Your task to perform on an android device: Search for the best rated kitchen reno kits on Lowes.com Image 0: 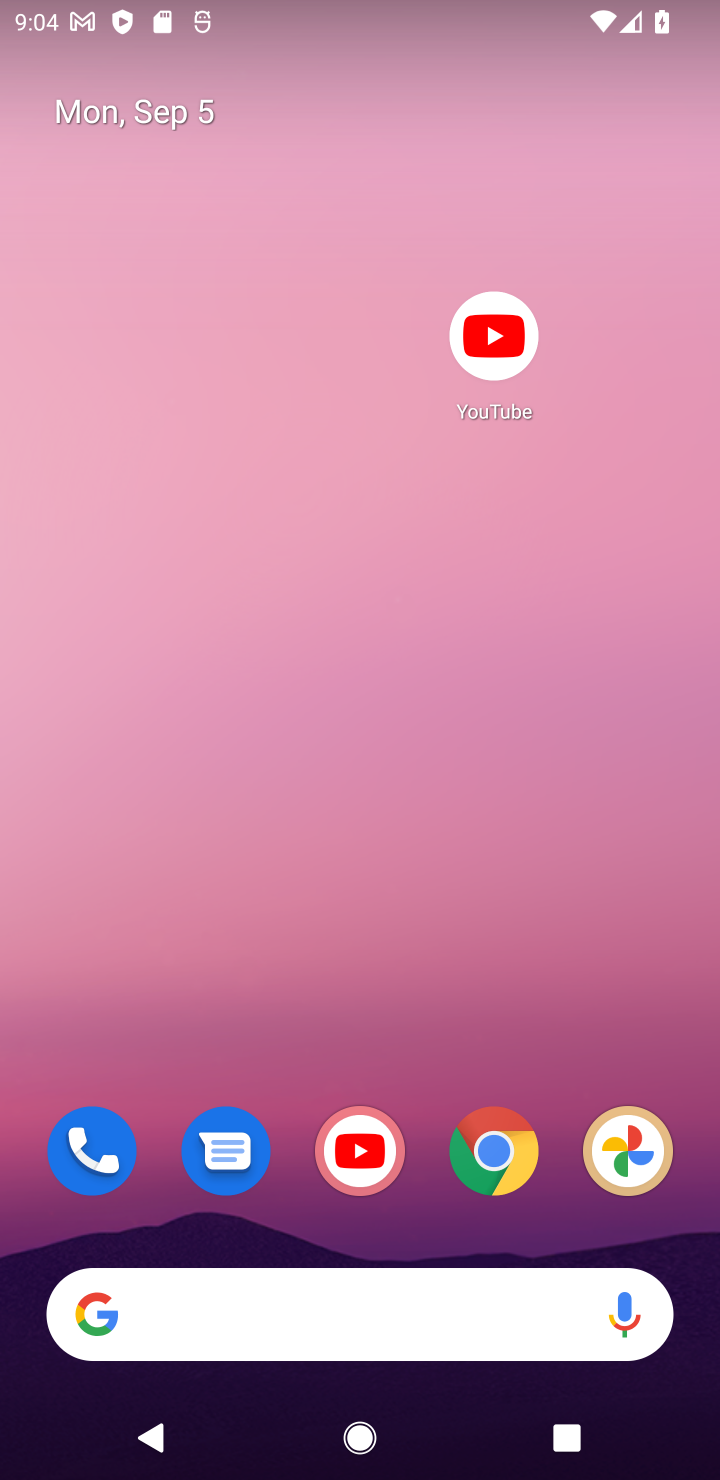
Step 0: click (44, 298)
Your task to perform on an android device: Search for the best rated kitchen reno kits on Lowes.com Image 1: 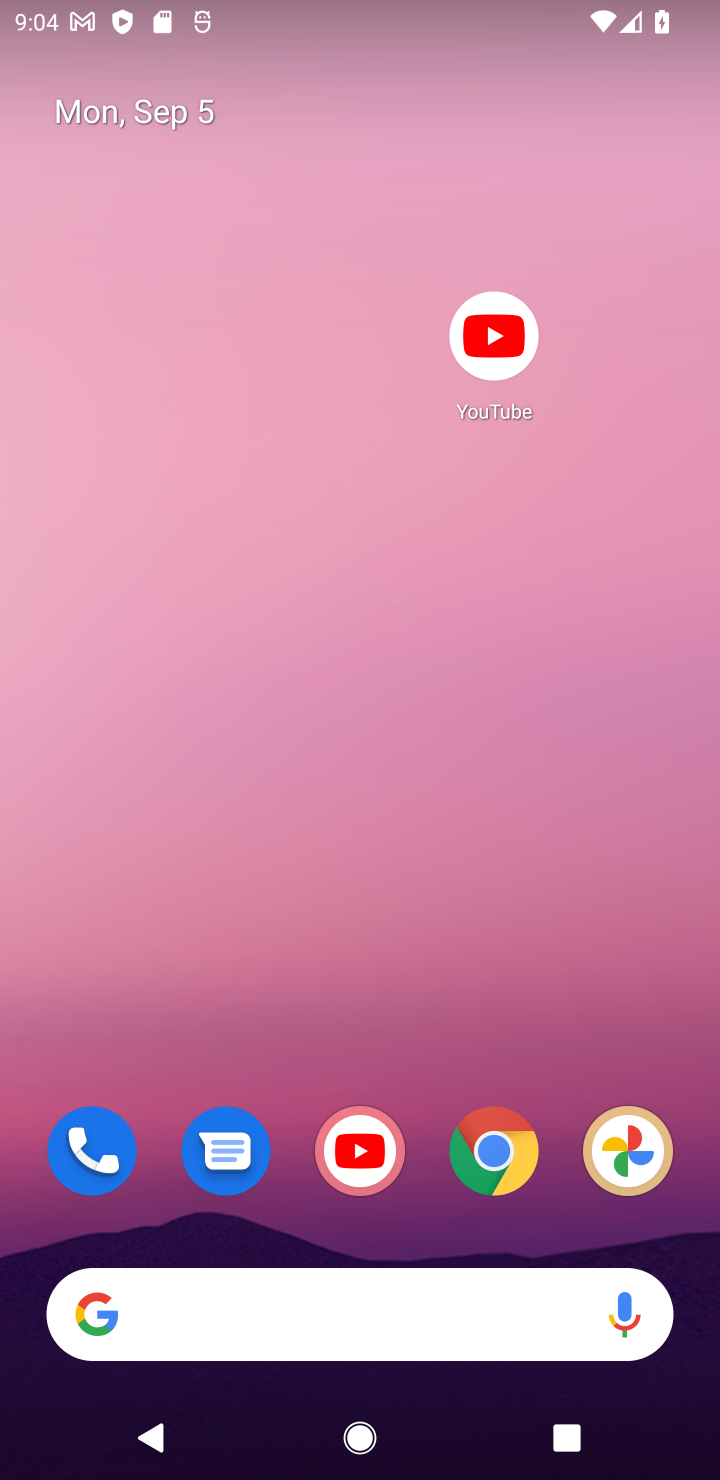
Step 1: drag from (334, 645) to (447, 177)
Your task to perform on an android device: Search for the best rated kitchen reno kits on Lowes.com Image 2: 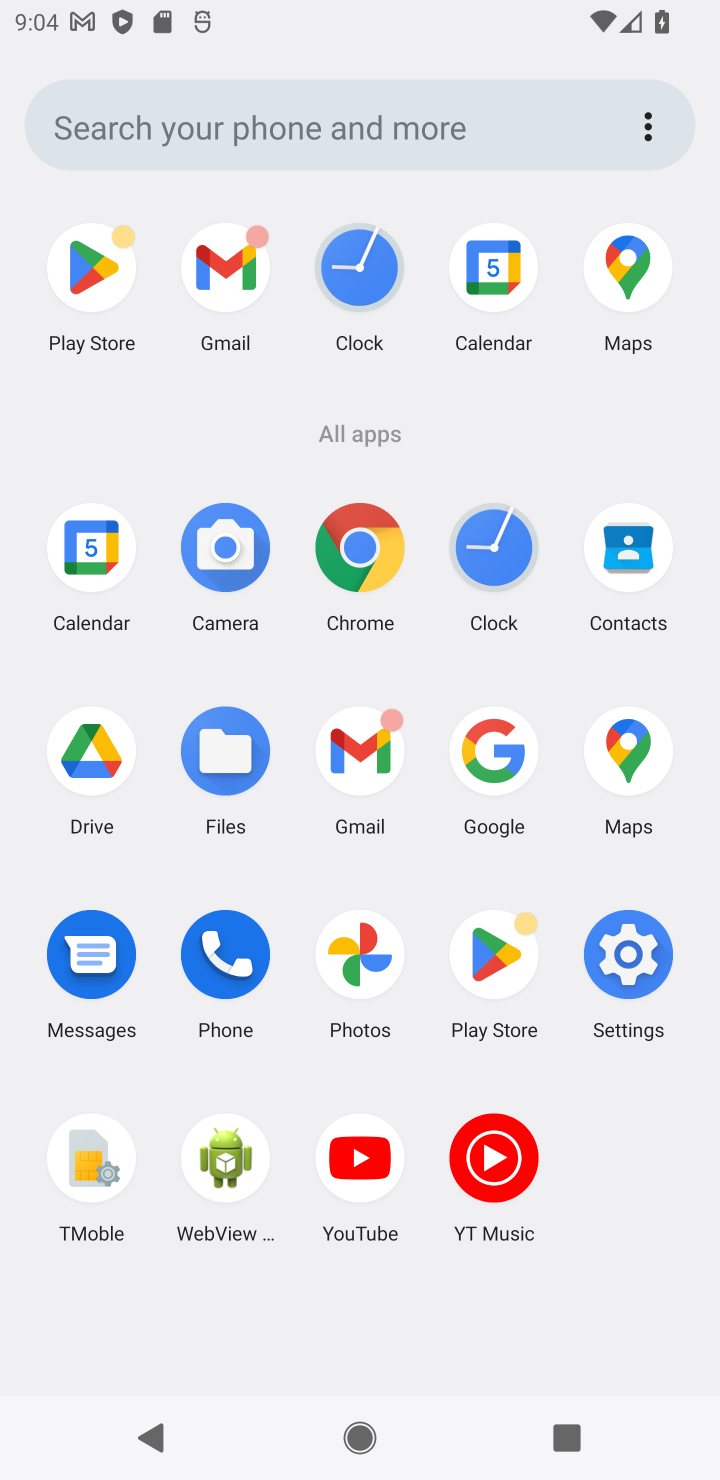
Step 2: click (380, 566)
Your task to perform on an android device: Search for the best rated kitchen reno kits on Lowes.com Image 3: 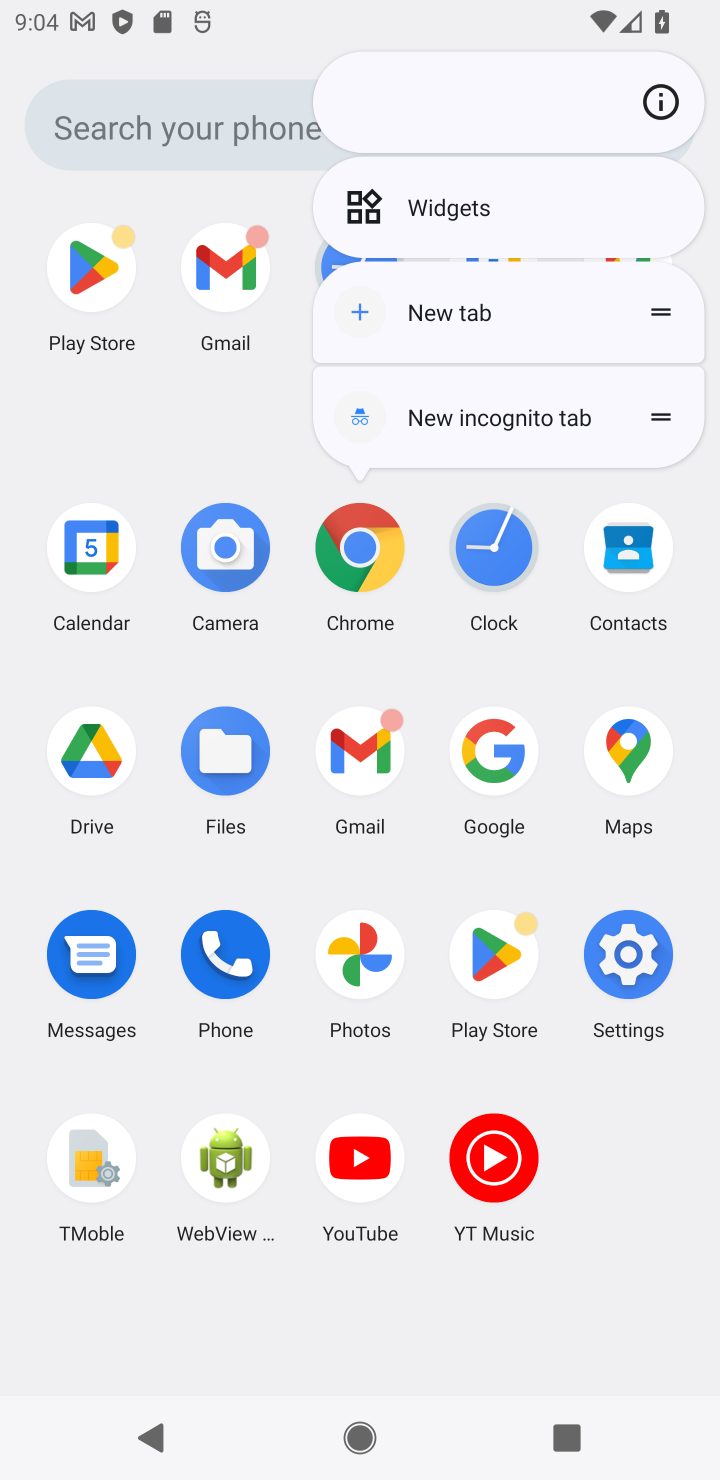
Step 3: click (379, 558)
Your task to perform on an android device: Search for the best rated kitchen reno kits on Lowes.com Image 4: 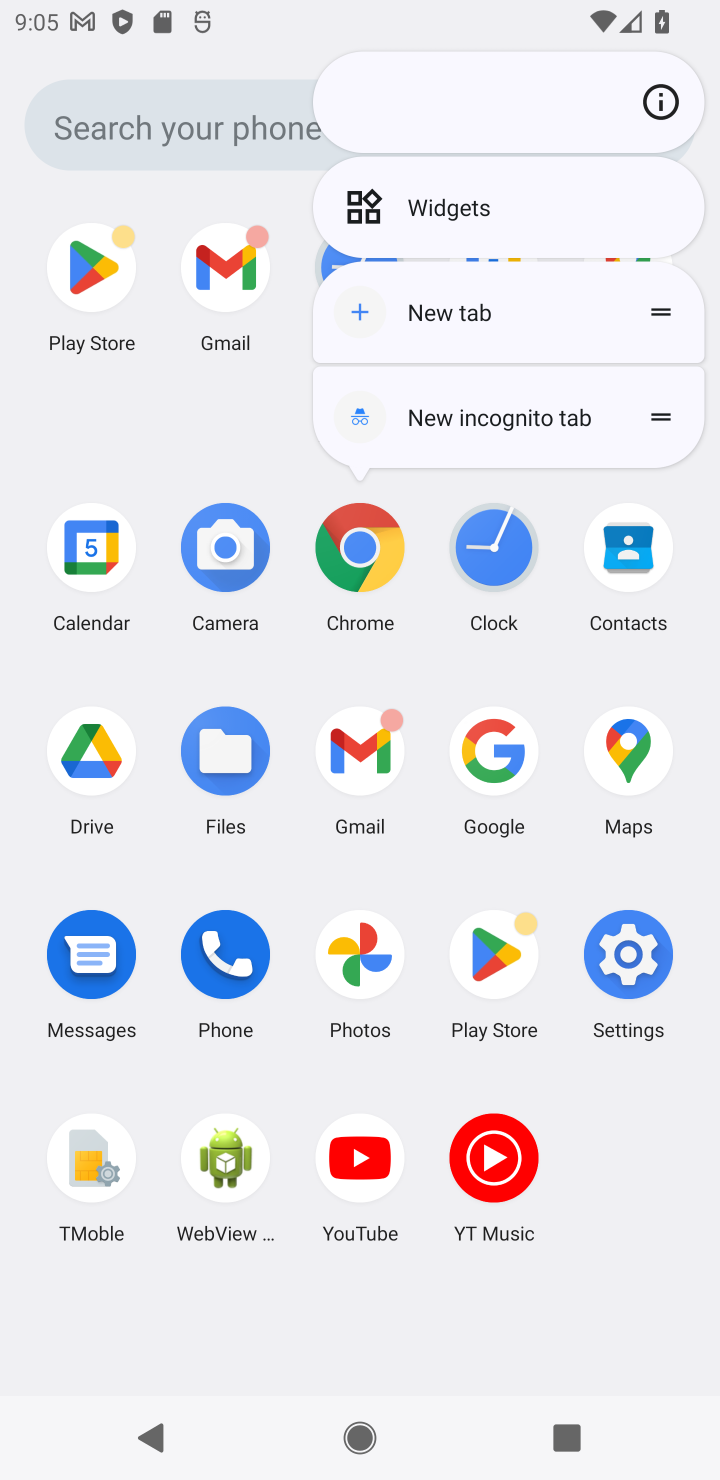
Step 4: click (379, 558)
Your task to perform on an android device: Search for the best rated kitchen reno kits on Lowes.com Image 5: 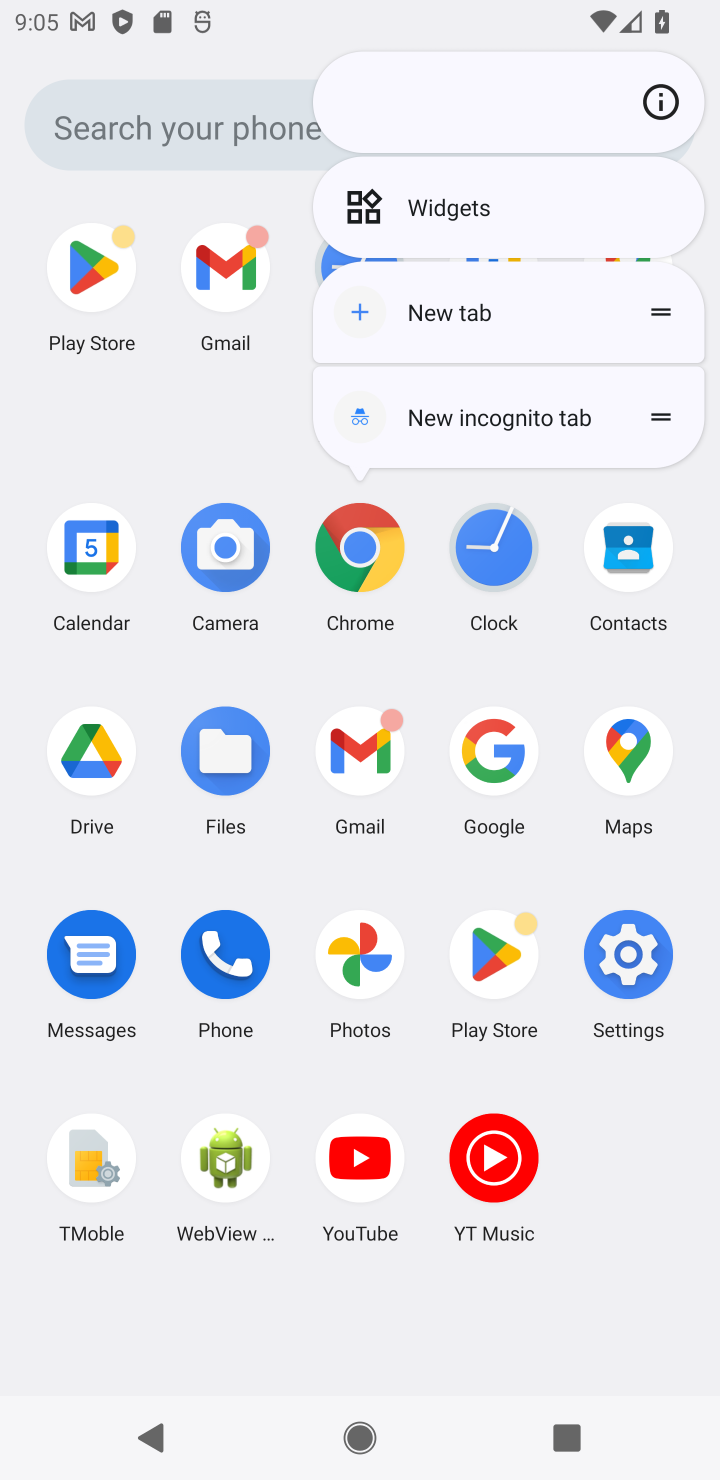
Step 5: click (338, 525)
Your task to perform on an android device: Search for the best rated kitchen reno kits on Lowes.com Image 6: 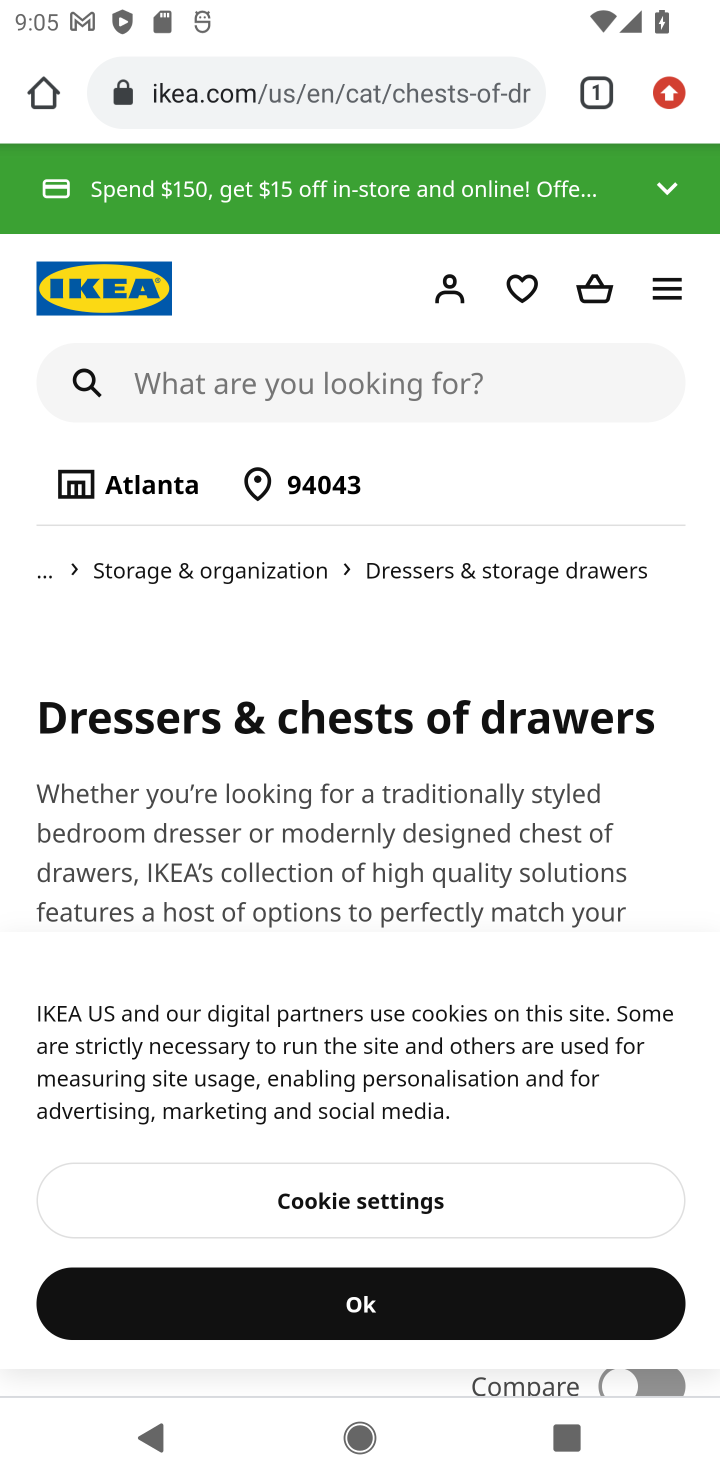
Step 6: click (258, 70)
Your task to perform on an android device: Search for the best rated kitchen reno kits on Lowes.com Image 7: 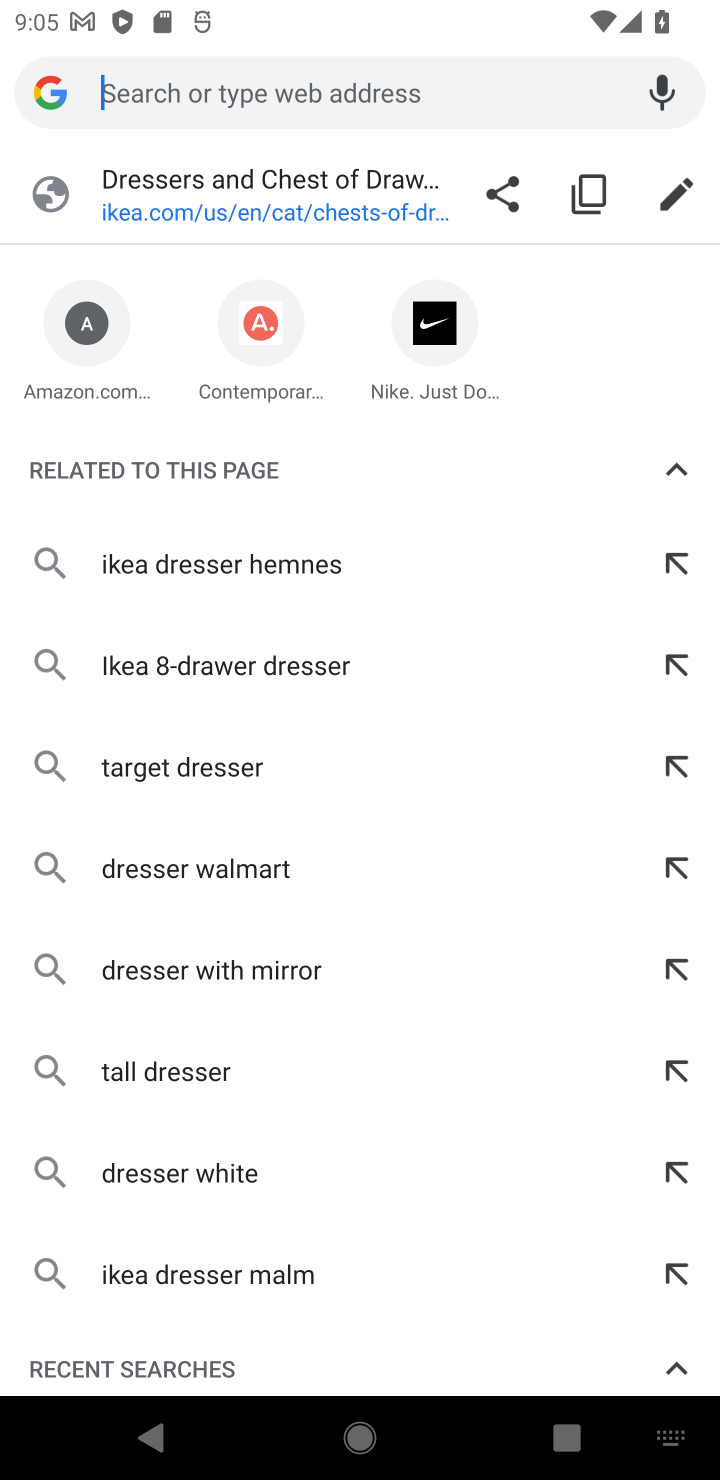
Step 7: type "Lowes.com"
Your task to perform on an android device: Search for the best rated kitchen reno kits on Lowes.com Image 8: 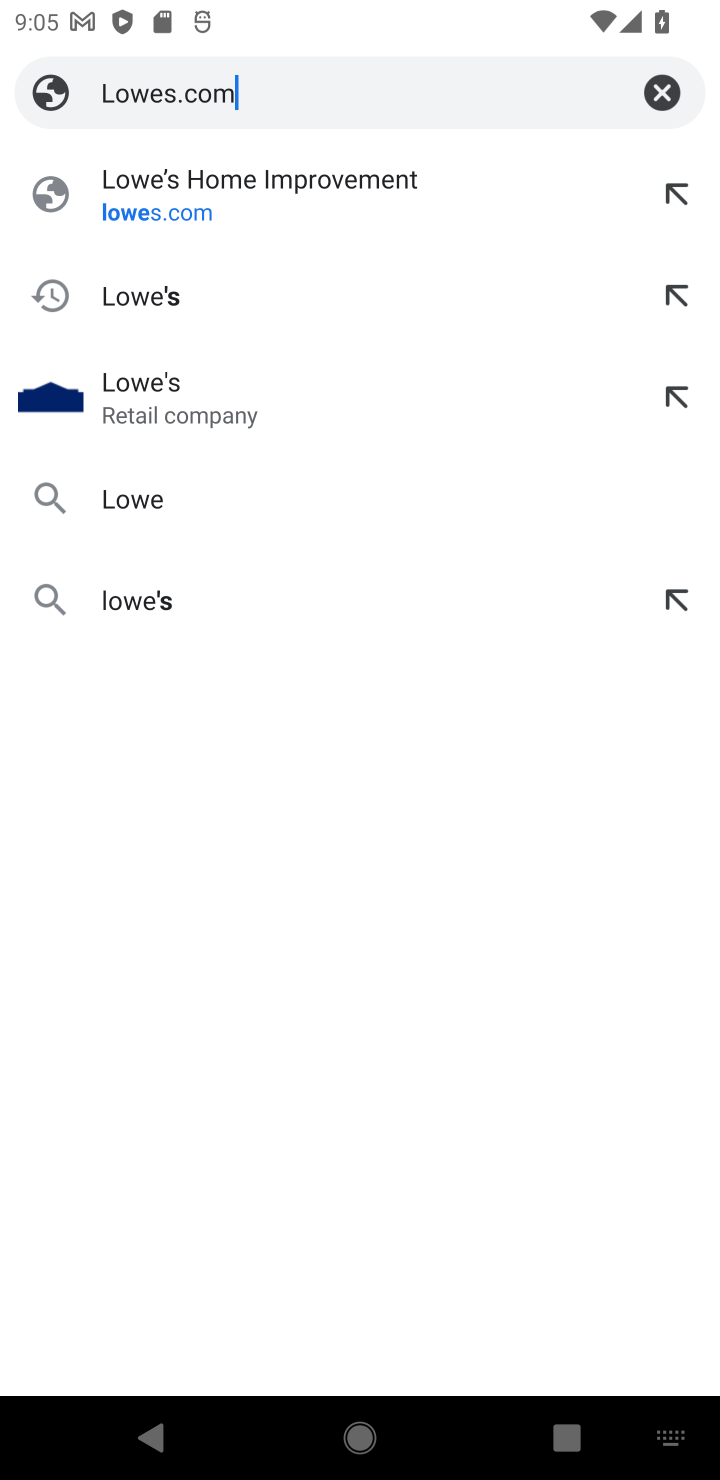
Step 8: press enter
Your task to perform on an android device: Search for the best rated kitchen reno kits on Lowes.com Image 9: 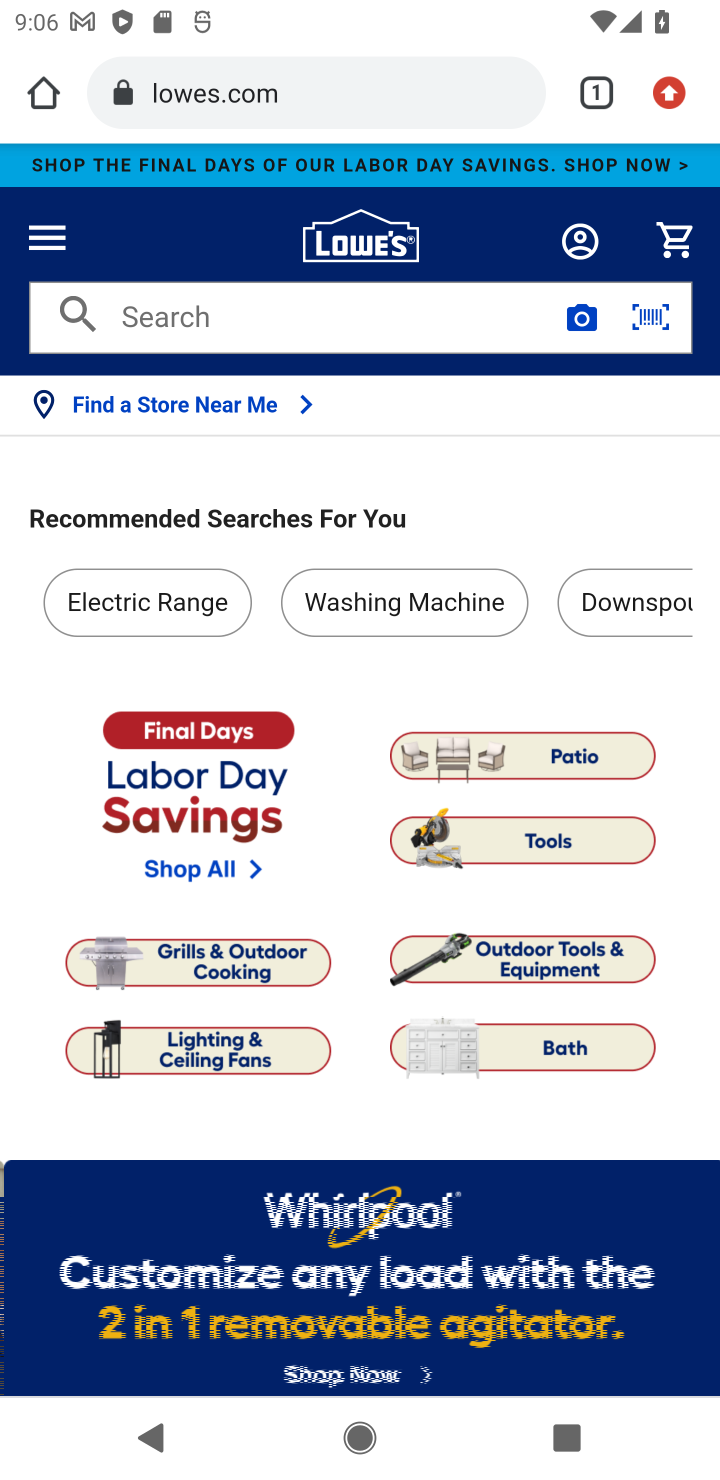
Step 9: click (180, 324)
Your task to perform on an android device: Search for the best rated kitchen reno kits on Lowes.com Image 10: 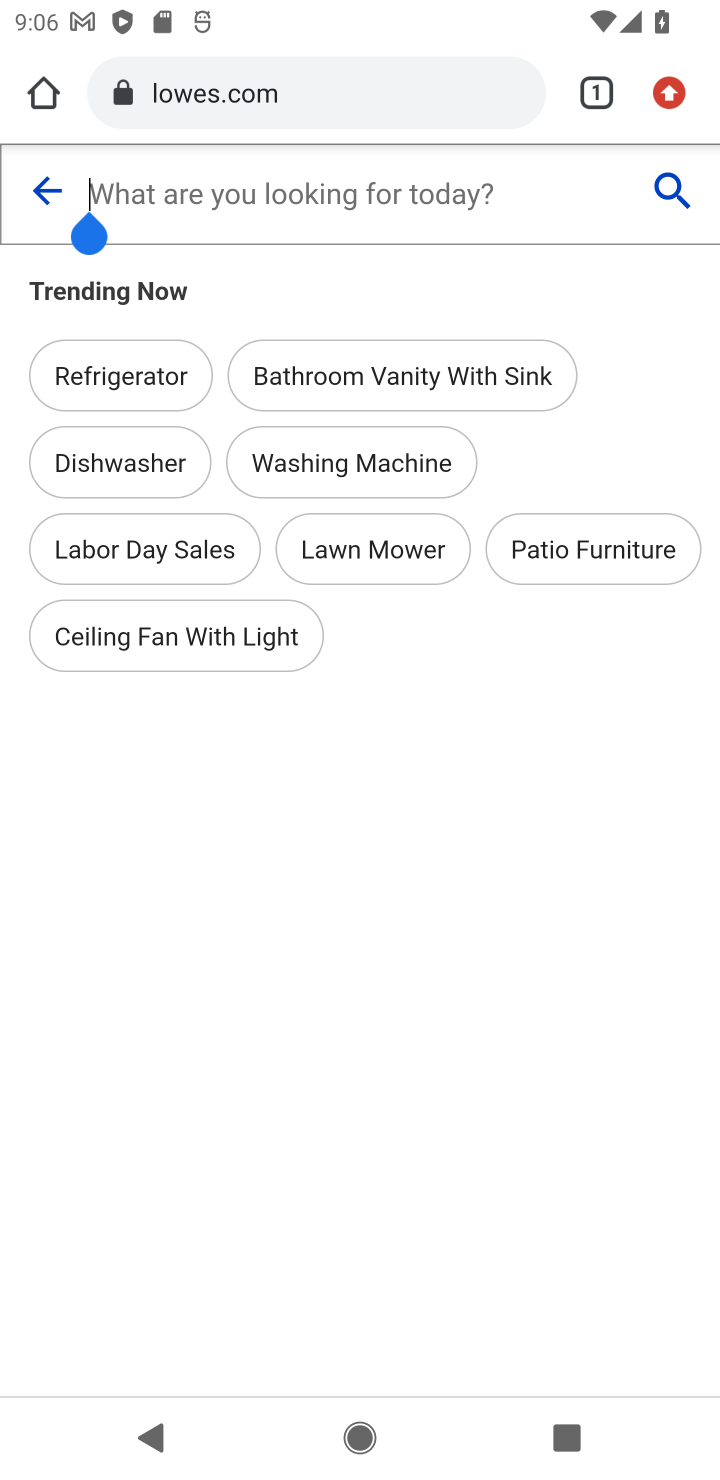
Step 10: type "best rated kitchen reno kits "
Your task to perform on an android device: Search for the best rated kitchen reno kits on Lowes.com Image 11: 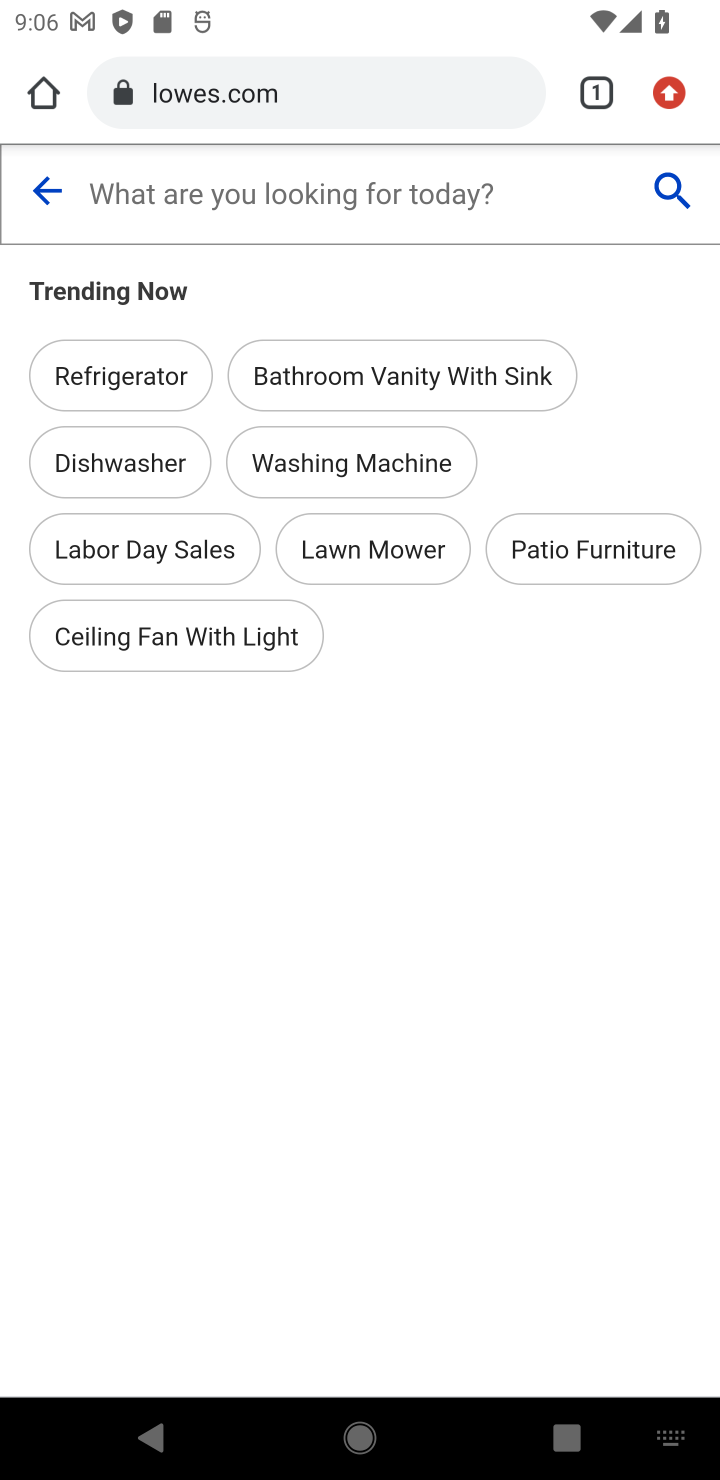
Step 11: press enter
Your task to perform on an android device: Search for the best rated kitchen reno kits on Lowes.com Image 12: 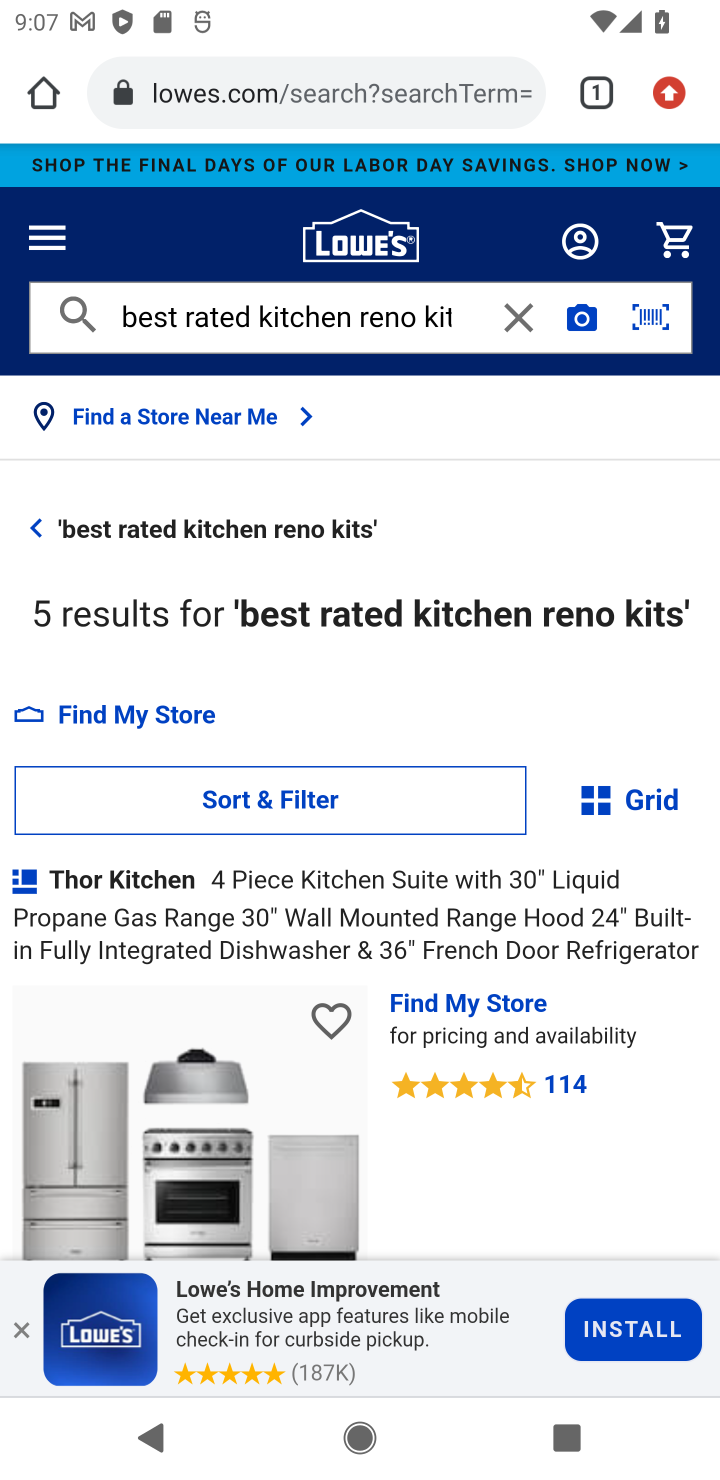
Step 12: drag from (405, 927) to (396, 707)
Your task to perform on an android device: Search for the best rated kitchen reno kits on Lowes.com Image 13: 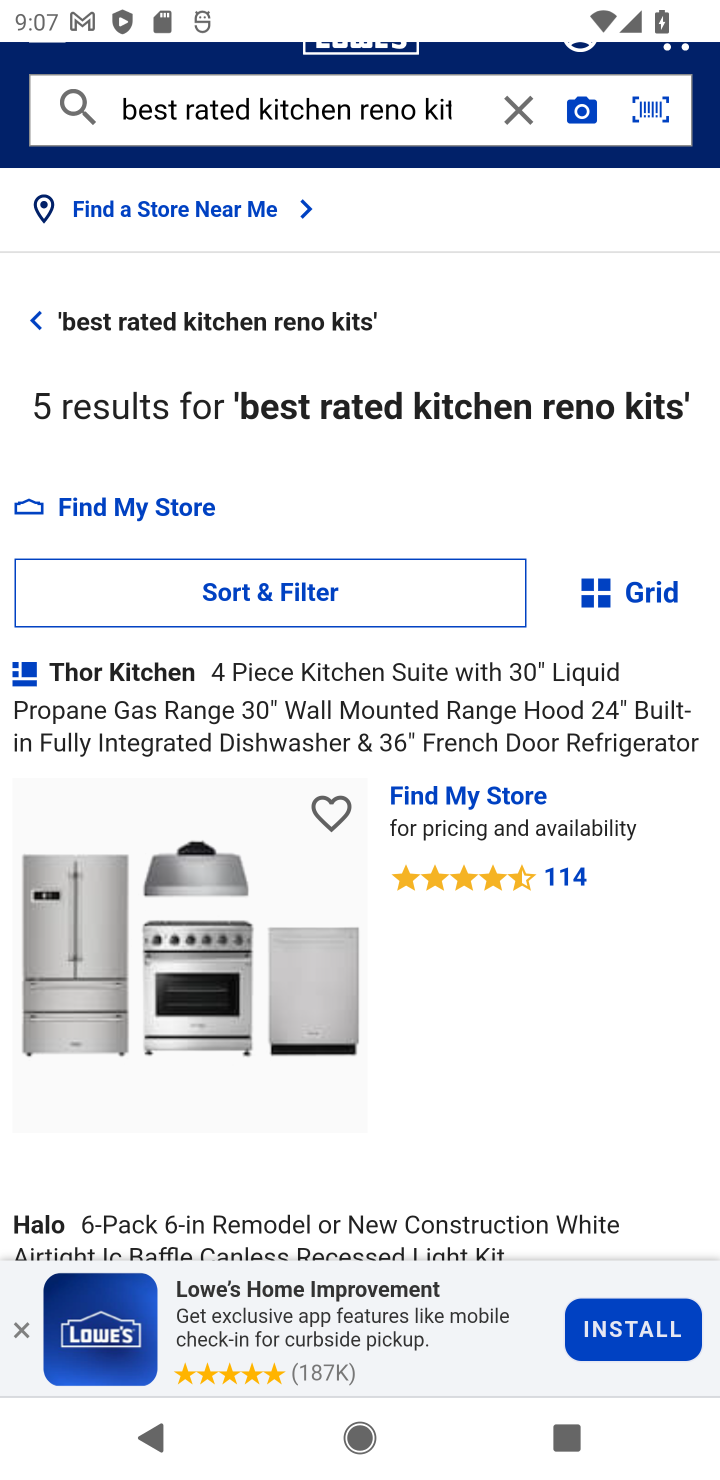
Step 13: click (363, 800)
Your task to perform on an android device: Search for the best rated kitchen reno kits on Lowes.com Image 14: 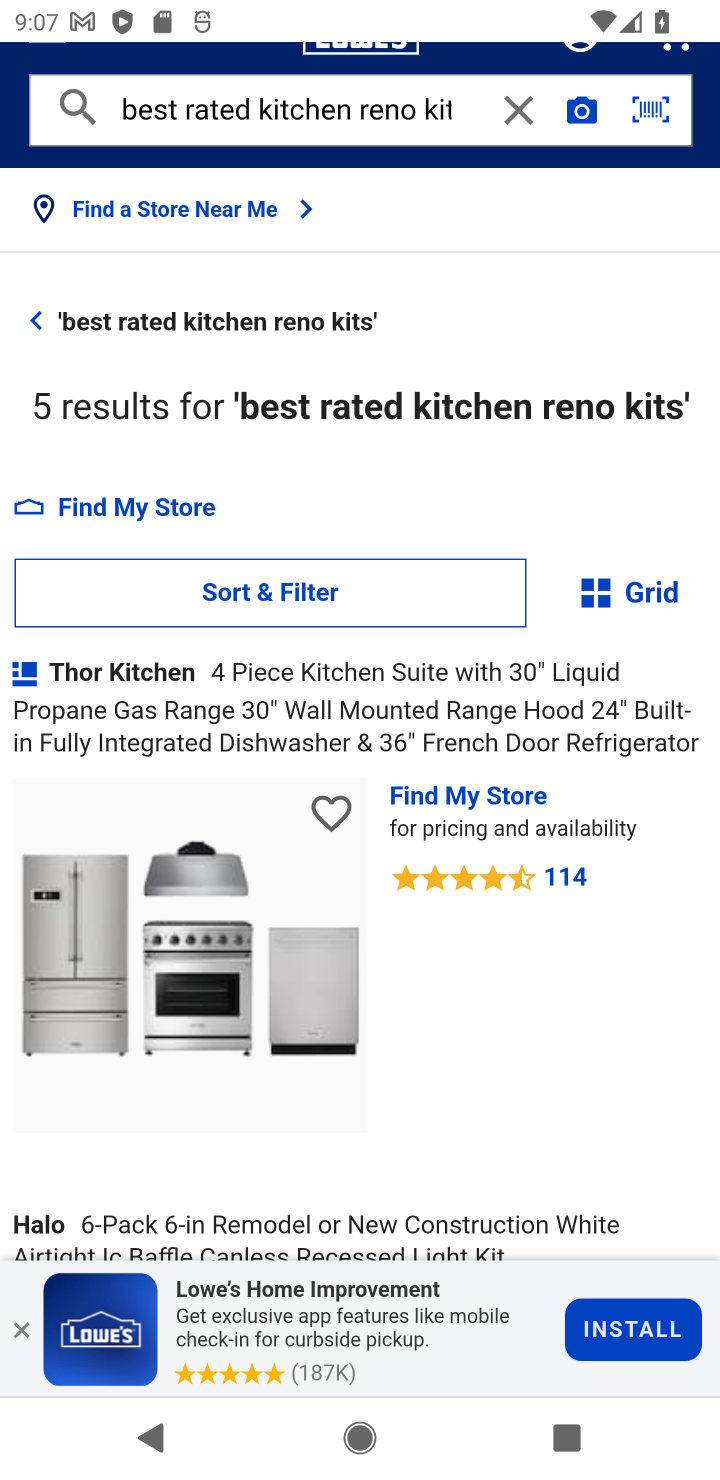
Step 14: task complete